Your task to perform on an android device: Search for sushi restaurants on Maps Image 0: 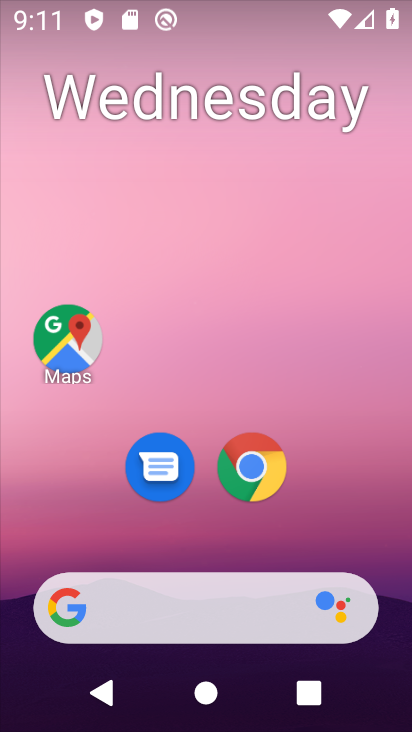
Step 0: click (72, 353)
Your task to perform on an android device: Search for sushi restaurants on Maps Image 1: 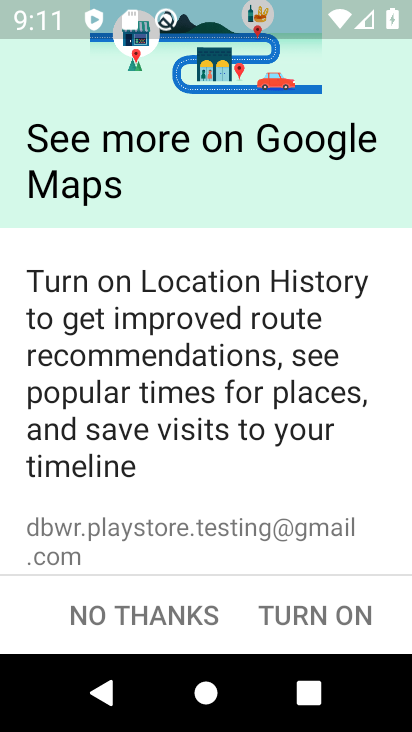
Step 1: click (159, 616)
Your task to perform on an android device: Search for sushi restaurants on Maps Image 2: 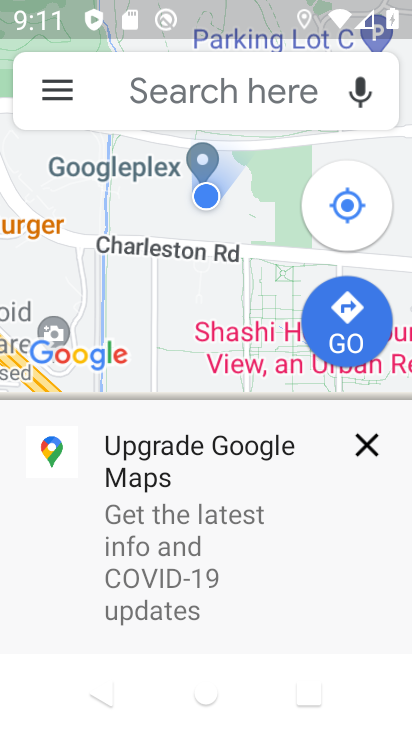
Step 2: click (362, 441)
Your task to perform on an android device: Search for sushi restaurants on Maps Image 3: 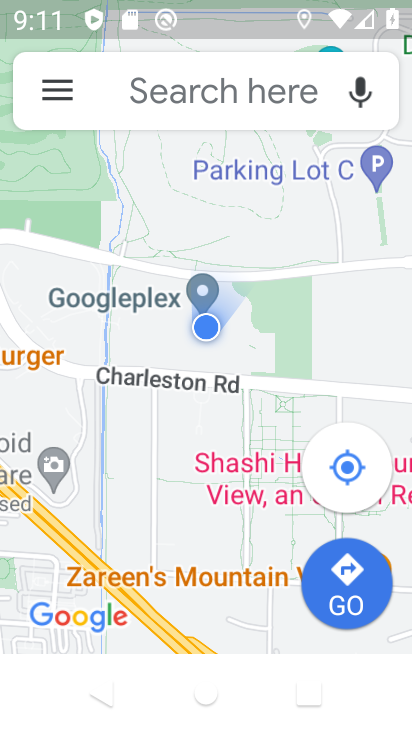
Step 3: click (186, 105)
Your task to perform on an android device: Search for sushi restaurants on Maps Image 4: 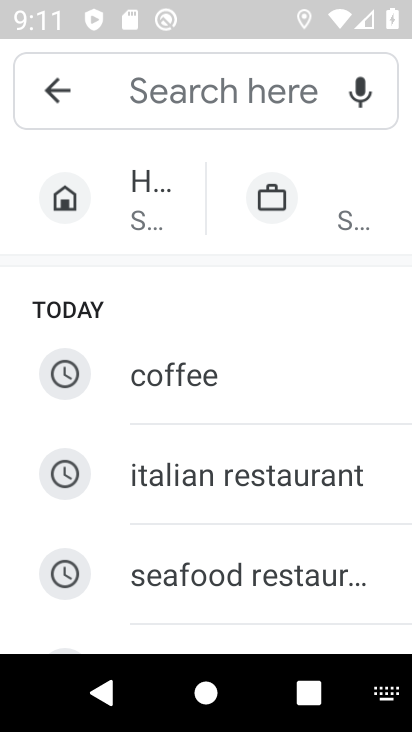
Step 4: drag from (254, 548) to (262, 206)
Your task to perform on an android device: Search for sushi restaurants on Maps Image 5: 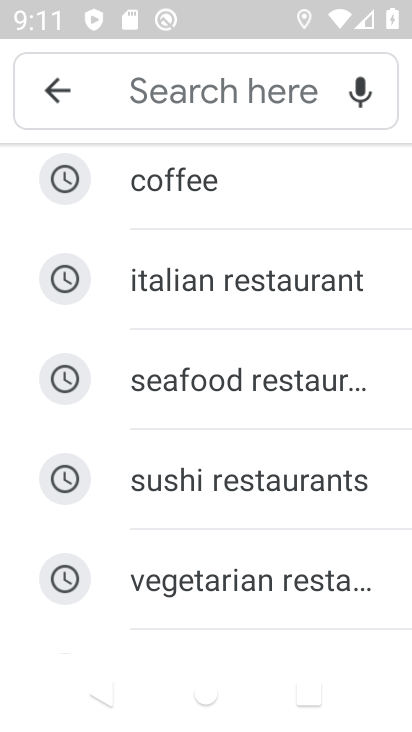
Step 5: click (238, 492)
Your task to perform on an android device: Search for sushi restaurants on Maps Image 6: 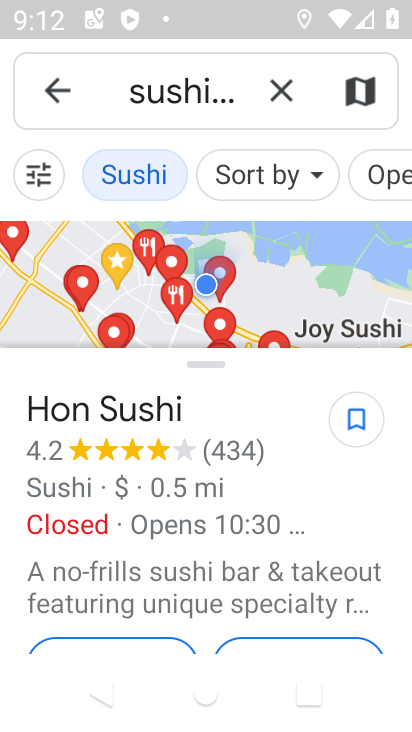
Step 6: task complete